Your task to perform on an android device: move an email to a new category in the gmail app Image 0: 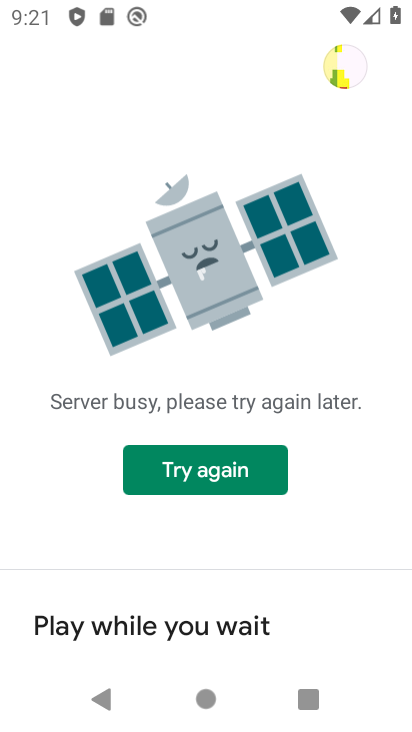
Step 0: press home button
Your task to perform on an android device: move an email to a new category in the gmail app Image 1: 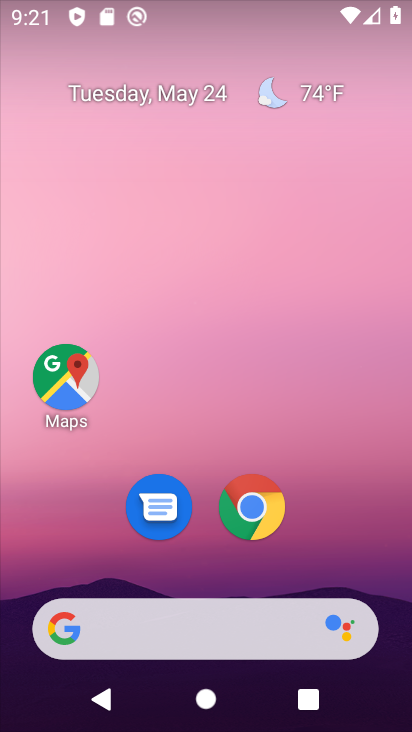
Step 1: drag from (229, 716) to (197, 142)
Your task to perform on an android device: move an email to a new category in the gmail app Image 2: 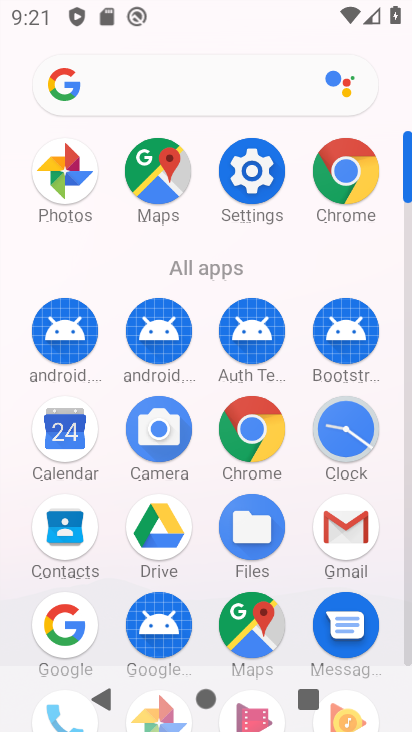
Step 2: click (351, 533)
Your task to perform on an android device: move an email to a new category in the gmail app Image 3: 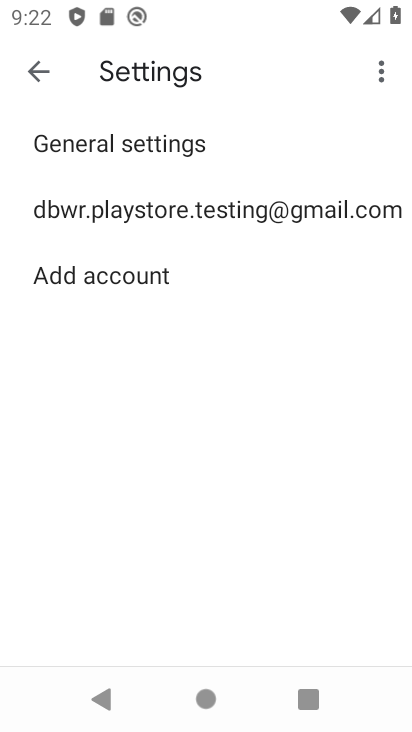
Step 3: click (35, 70)
Your task to perform on an android device: move an email to a new category in the gmail app Image 4: 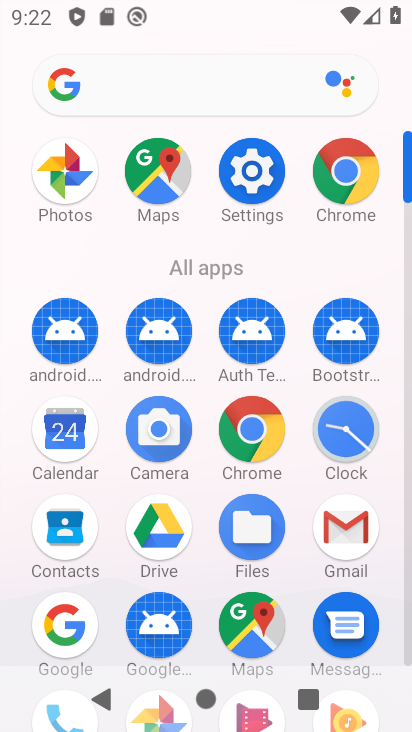
Step 4: click (367, 522)
Your task to perform on an android device: move an email to a new category in the gmail app Image 5: 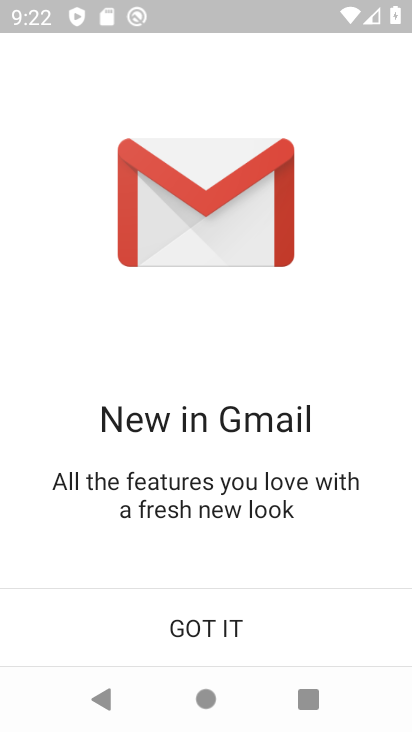
Step 5: click (193, 632)
Your task to perform on an android device: move an email to a new category in the gmail app Image 6: 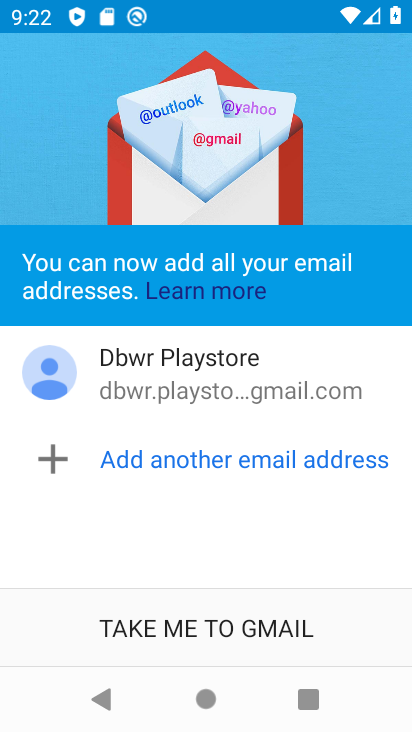
Step 6: click (189, 624)
Your task to perform on an android device: move an email to a new category in the gmail app Image 7: 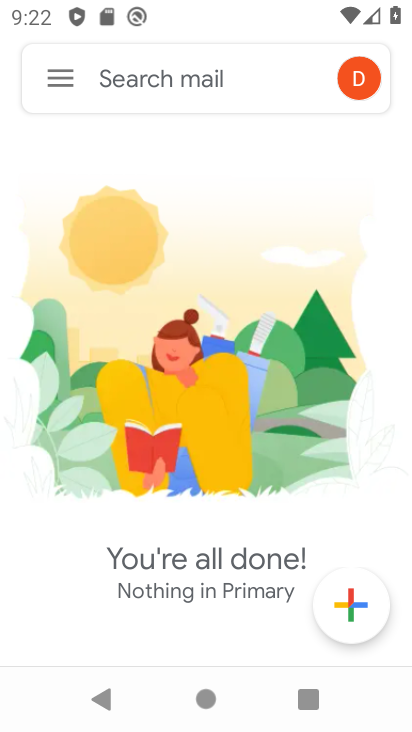
Step 7: task complete